Your task to perform on an android device: Go to Google maps Image 0: 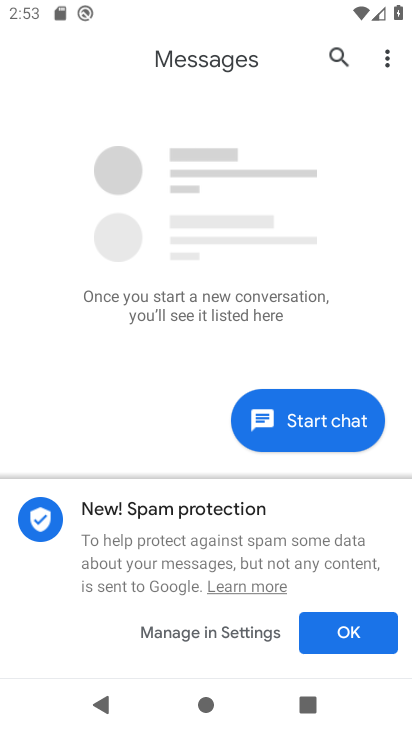
Step 0: press home button
Your task to perform on an android device: Go to Google maps Image 1: 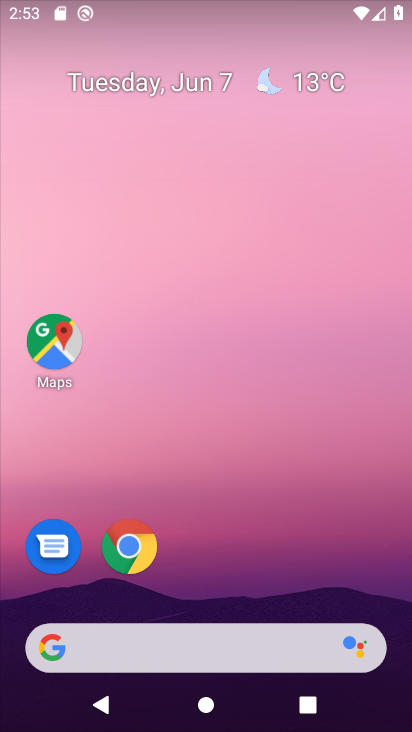
Step 1: drag from (323, 536) to (339, 185)
Your task to perform on an android device: Go to Google maps Image 2: 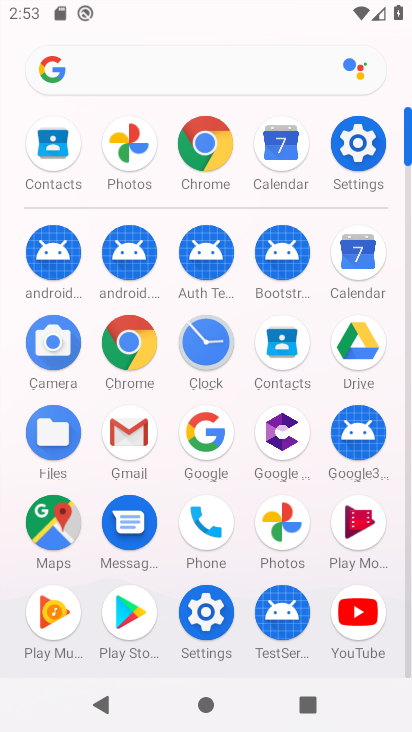
Step 2: click (60, 551)
Your task to perform on an android device: Go to Google maps Image 3: 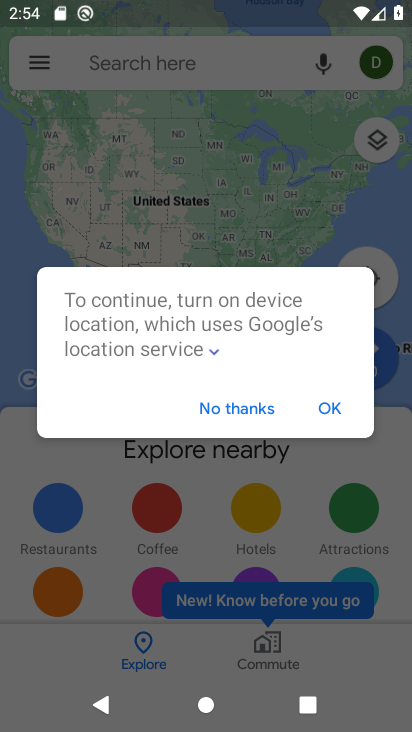
Step 3: click (329, 424)
Your task to perform on an android device: Go to Google maps Image 4: 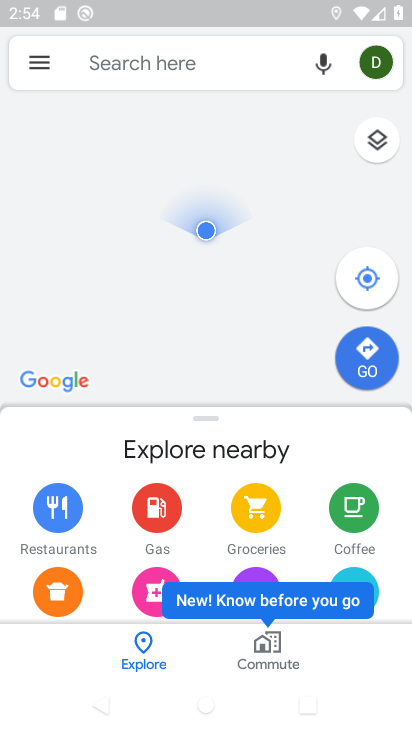
Step 4: task complete